Your task to perform on an android device: toggle show notifications on the lock screen Image 0: 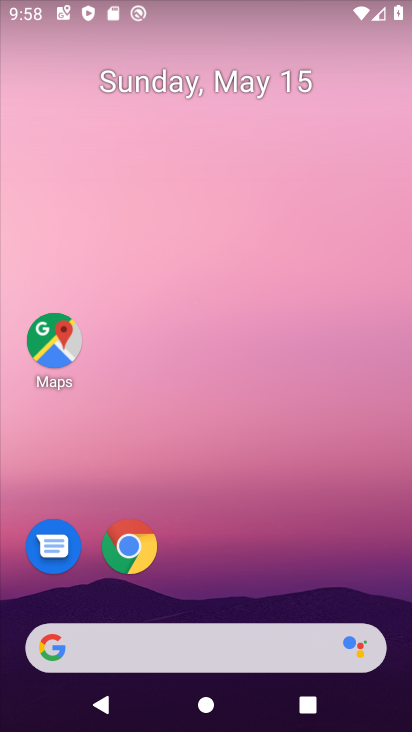
Step 0: drag from (277, 452) to (194, 67)
Your task to perform on an android device: toggle show notifications on the lock screen Image 1: 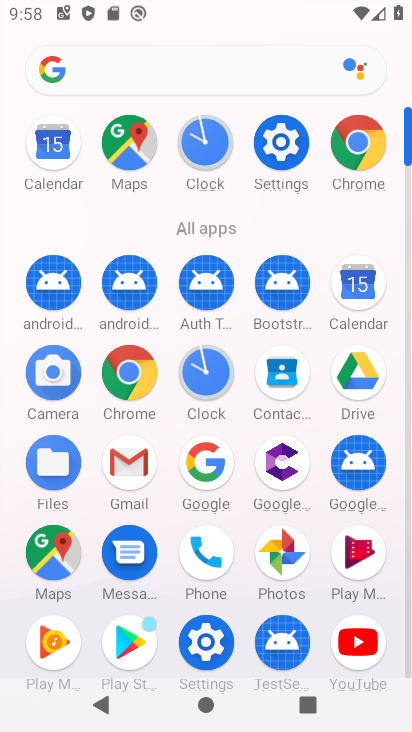
Step 1: click (301, 151)
Your task to perform on an android device: toggle show notifications on the lock screen Image 2: 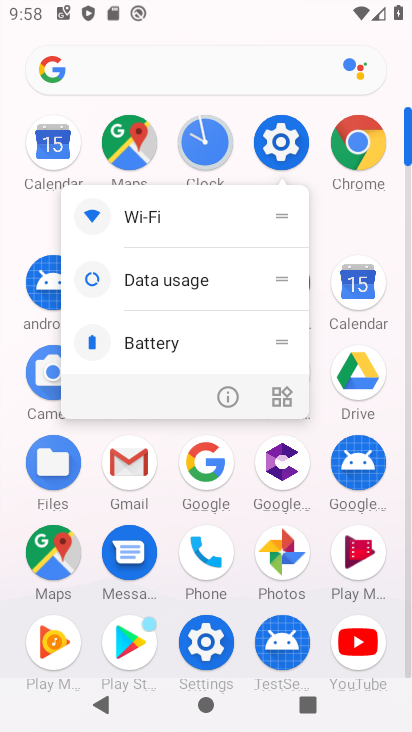
Step 2: click (279, 130)
Your task to perform on an android device: toggle show notifications on the lock screen Image 3: 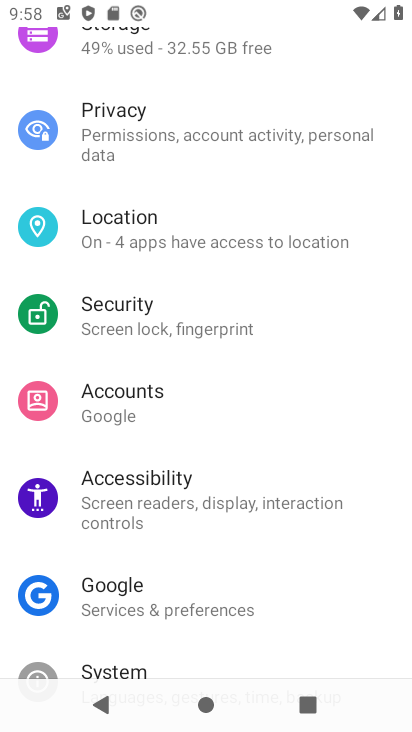
Step 3: drag from (248, 102) to (211, 398)
Your task to perform on an android device: toggle show notifications on the lock screen Image 4: 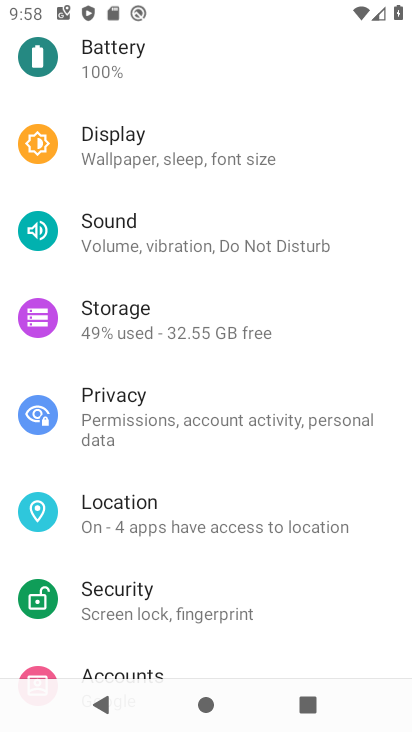
Step 4: drag from (205, 349) to (227, 556)
Your task to perform on an android device: toggle show notifications on the lock screen Image 5: 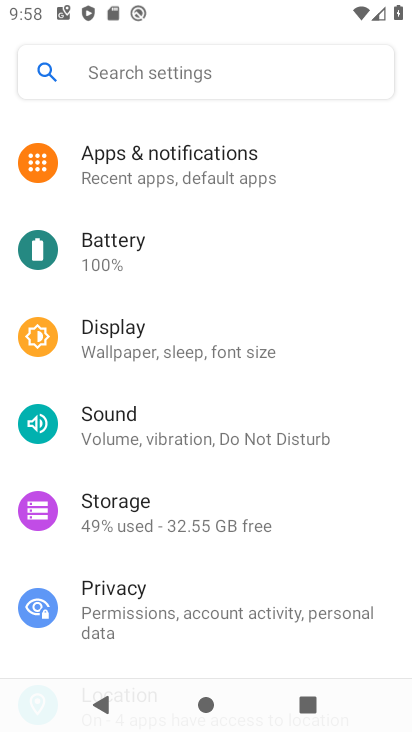
Step 5: click (217, 191)
Your task to perform on an android device: toggle show notifications on the lock screen Image 6: 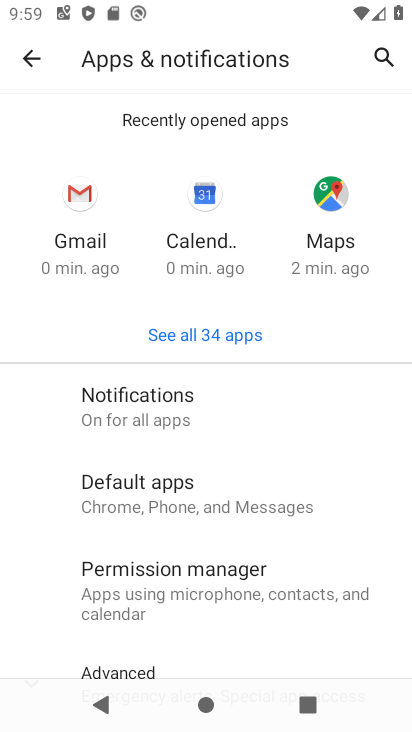
Step 6: click (193, 407)
Your task to perform on an android device: toggle show notifications on the lock screen Image 7: 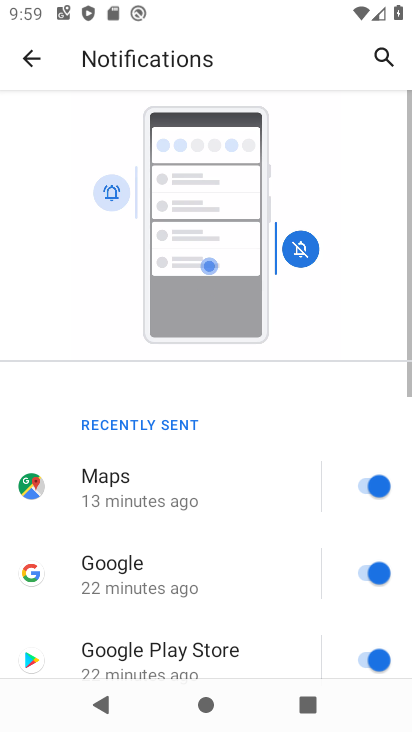
Step 7: drag from (218, 489) to (170, 25)
Your task to perform on an android device: toggle show notifications on the lock screen Image 8: 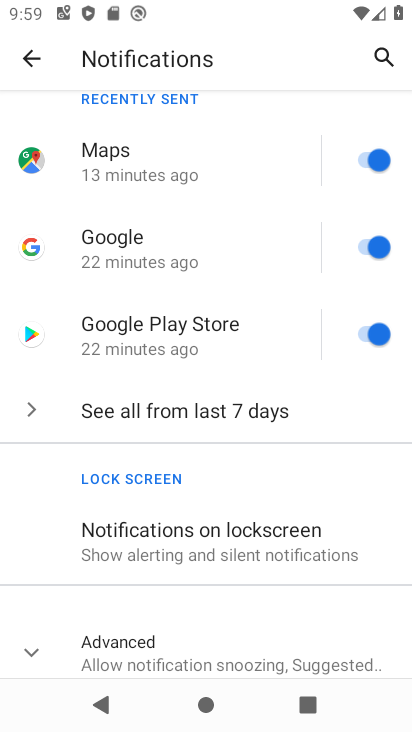
Step 8: click (228, 536)
Your task to perform on an android device: toggle show notifications on the lock screen Image 9: 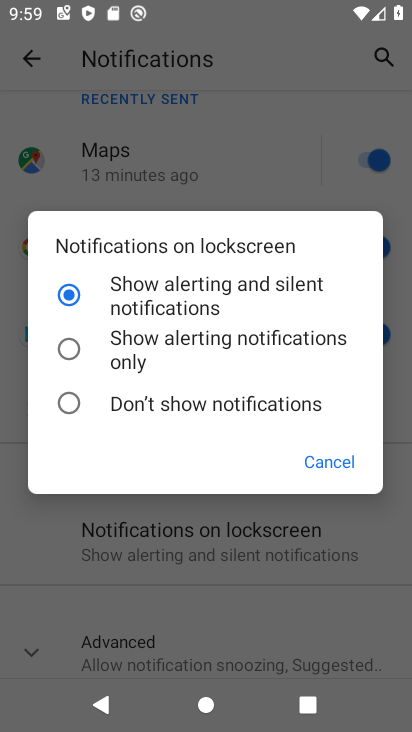
Step 9: click (175, 405)
Your task to perform on an android device: toggle show notifications on the lock screen Image 10: 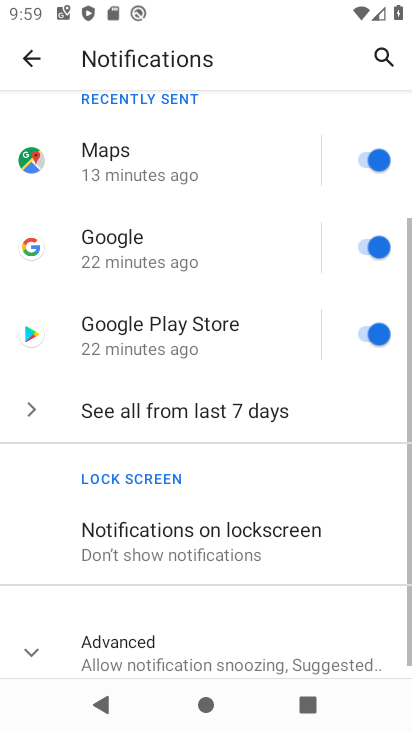
Step 10: task complete